Your task to perform on an android device: install app "WhatsApp Messenger" Image 0: 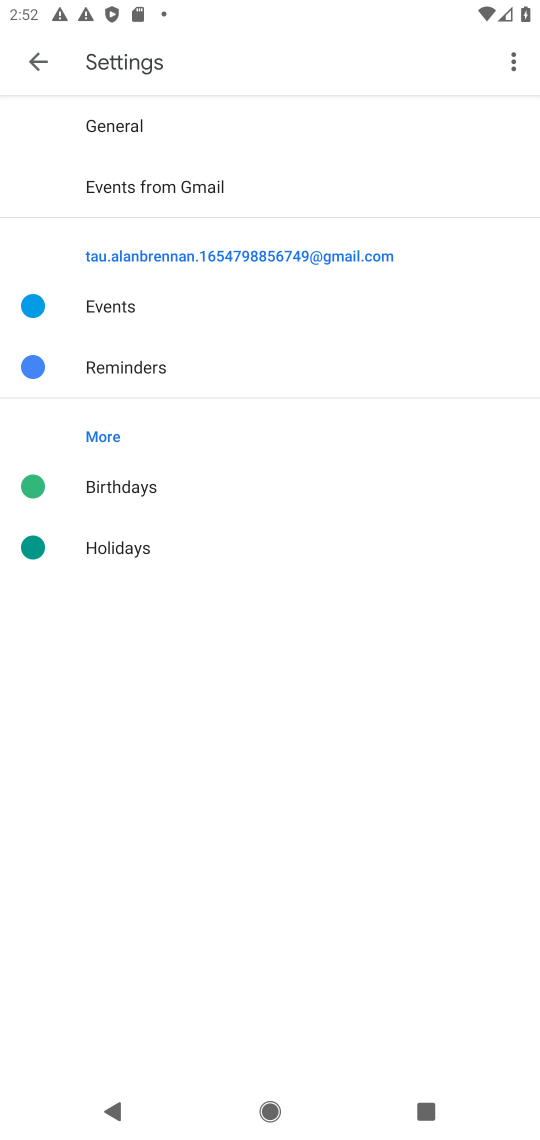
Step 0: click (38, 41)
Your task to perform on an android device: install app "WhatsApp Messenger" Image 1: 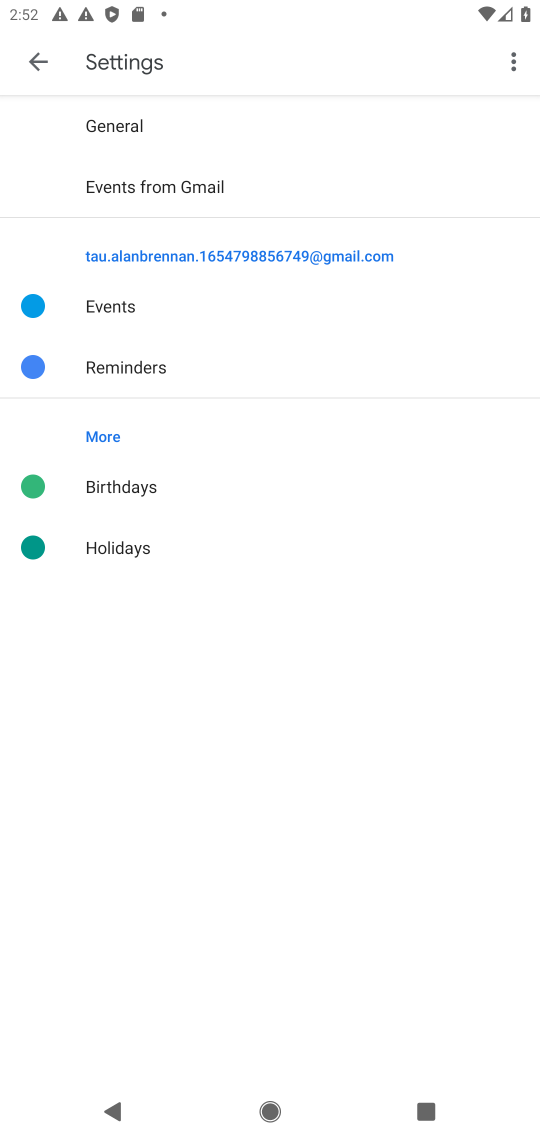
Step 1: click (18, 57)
Your task to perform on an android device: install app "WhatsApp Messenger" Image 2: 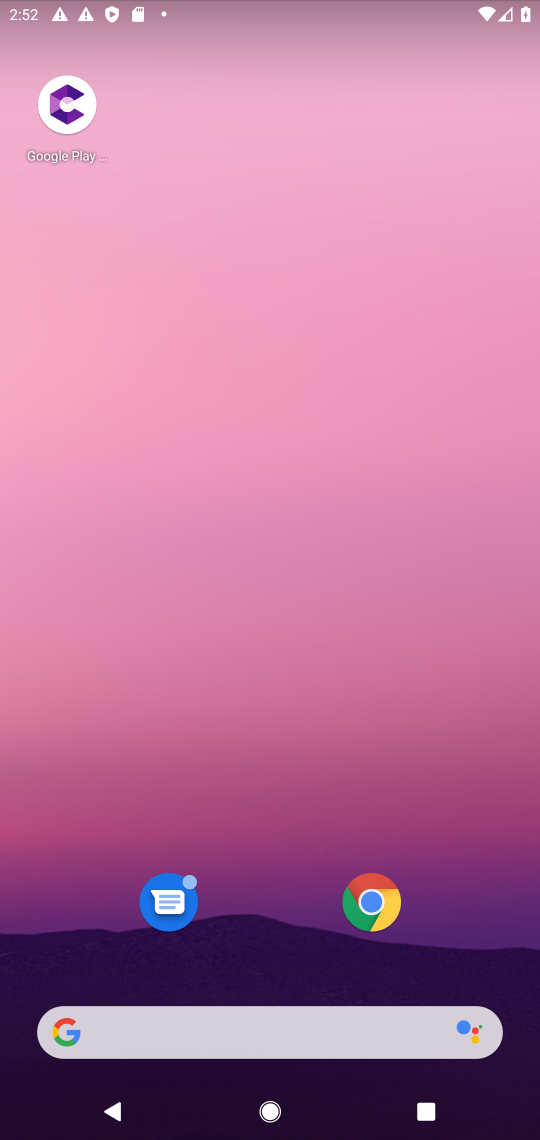
Step 2: drag from (234, 936) to (4, 152)
Your task to perform on an android device: install app "WhatsApp Messenger" Image 3: 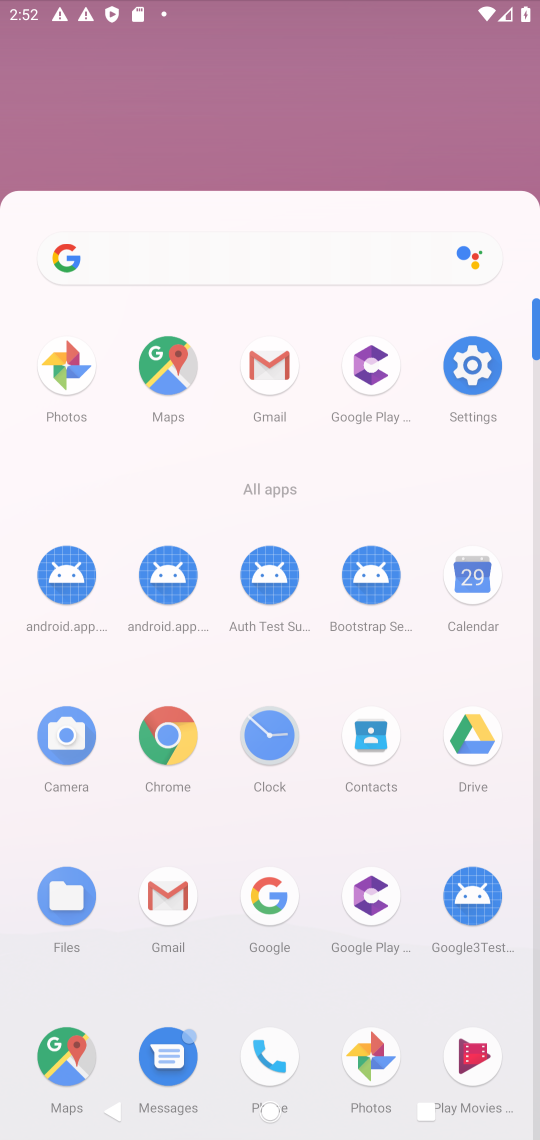
Step 3: drag from (245, 520) to (235, 462)
Your task to perform on an android device: install app "WhatsApp Messenger" Image 4: 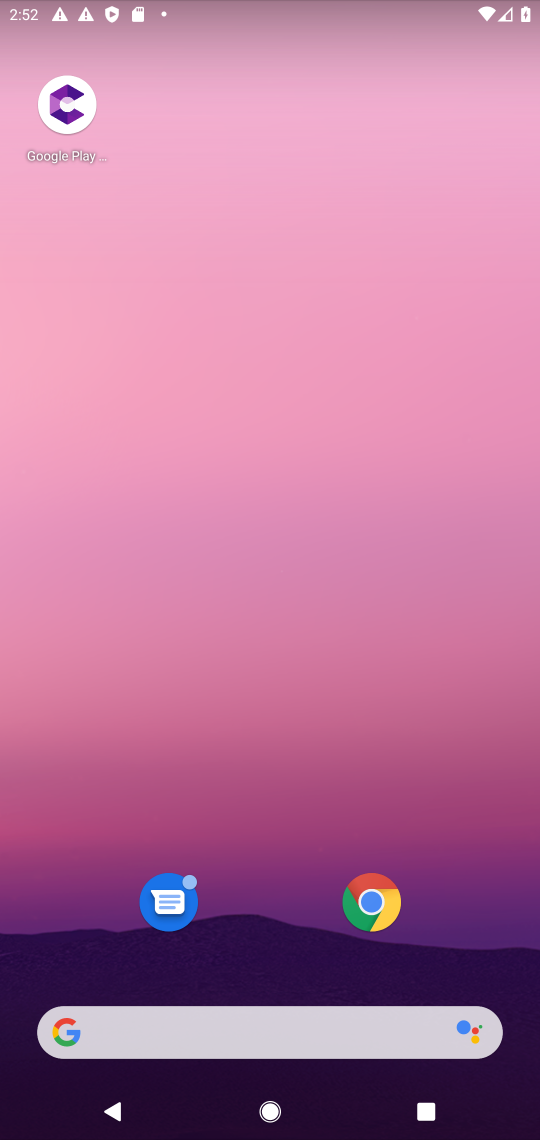
Step 4: drag from (356, 1081) to (334, 3)
Your task to perform on an android device: install app "WhatsApp Messenger" Image 5: 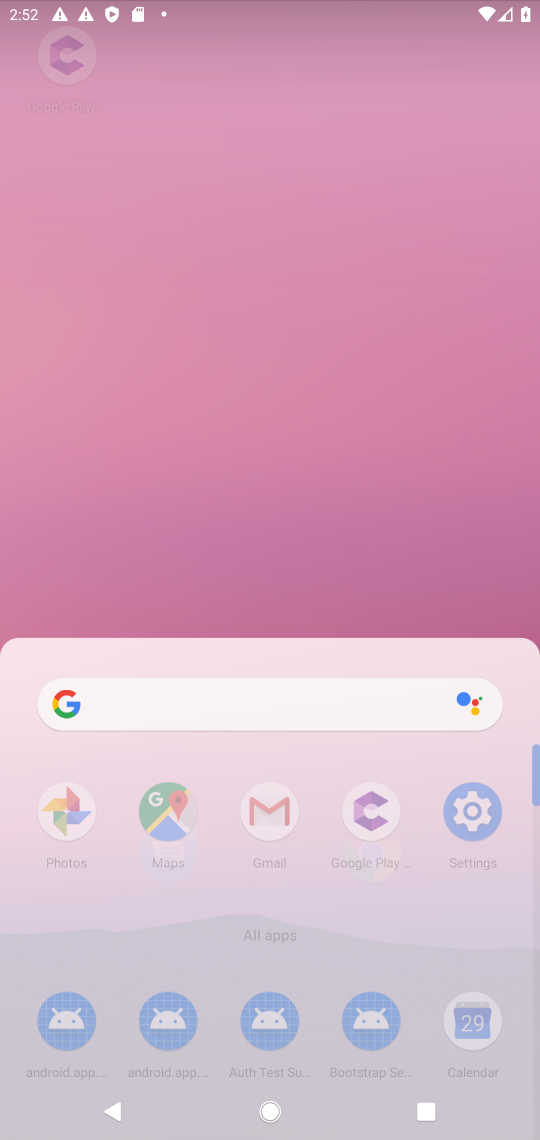
Step 5: drag from (209, 870) to (89, 36)
Your task to perform on an android device: install app "WhatsApp Messenger" Image 6: 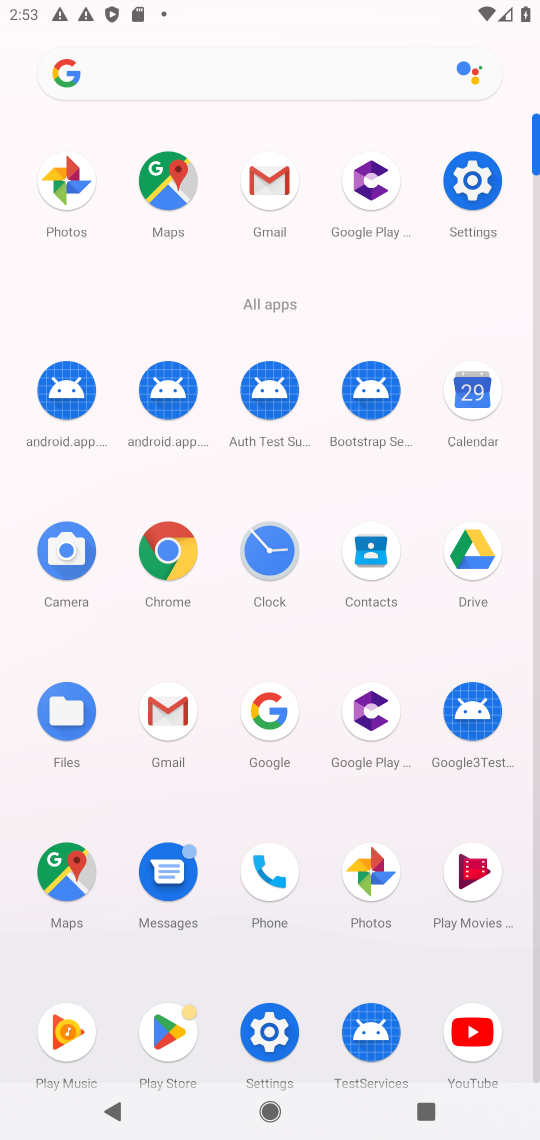
Step 6: click (176, 1031)
Your task to perform on an android device: install app "WhatsApp Messenger" Image 7: 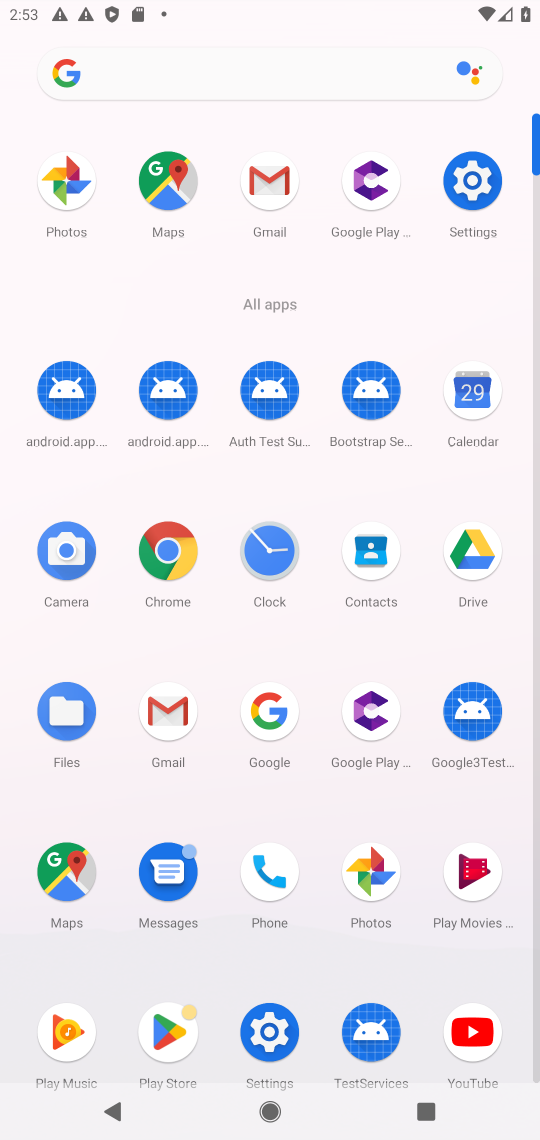
Step 7: click (185, 1027)
Your task to perform on an android device: install app "WhatsApp Messenger" Image 8: 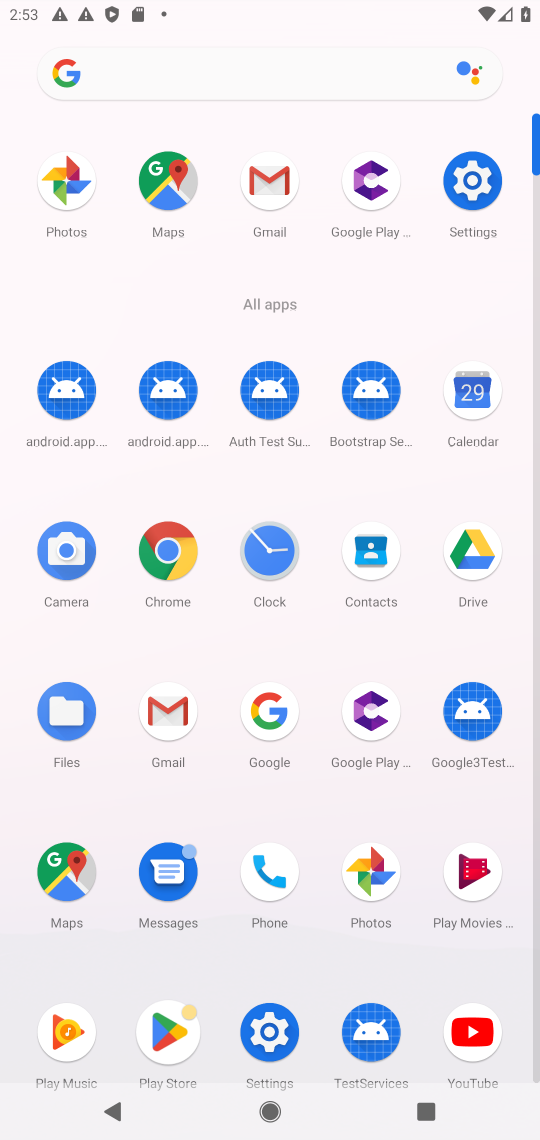
Step 8: click (185, 1027)
Your task to perform on an android device: install app "WhatsApp Messenger" Image 9: 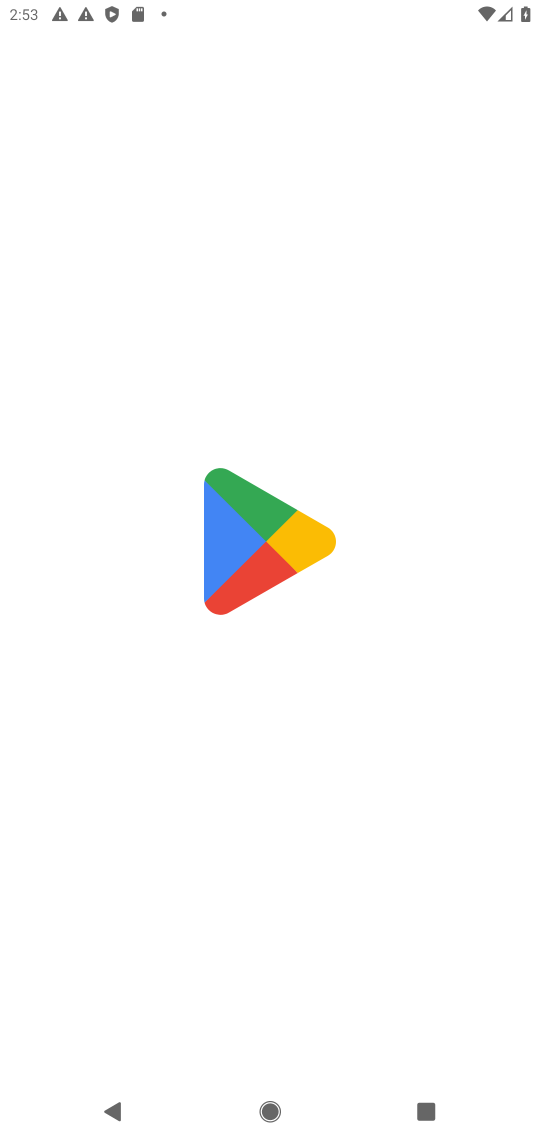
Step 9: click (172, 1023)
Your task to perform on an android device: install app "WhatsApp Messenger" Image 10: 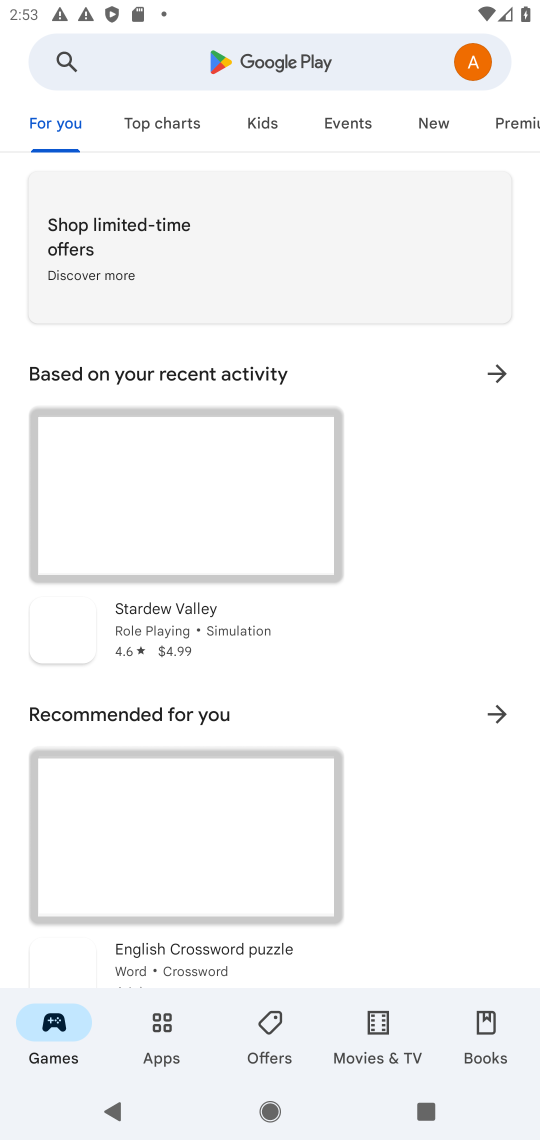
Step 10: click (208, 48)
Your task to perform on an android device: install app "WhatsApp Messenger" Image 11: 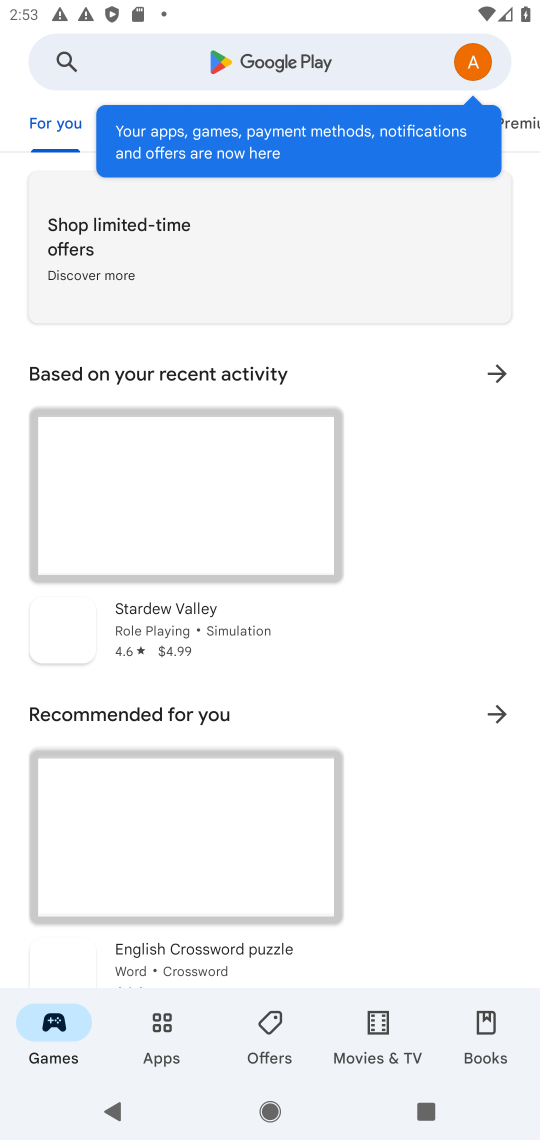
Step 11: click (204, 55)
Your task to perform on an android device: install app "WhatsApp Messenger" Image 12: 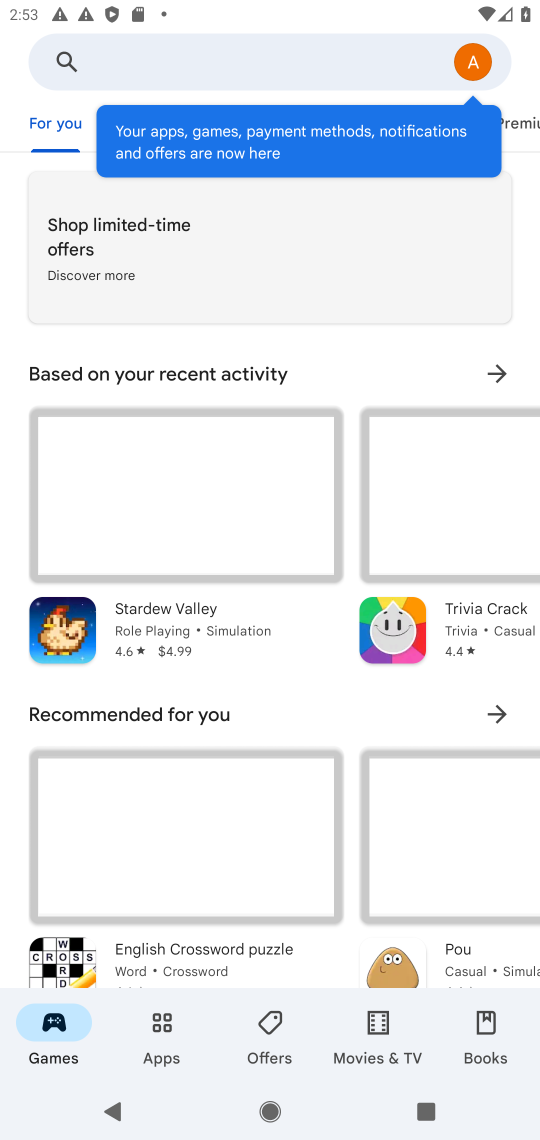
Step 12: click (204, 58)
Your task to perform on an android device: install app "WhatsApp Messenger" Image 13: 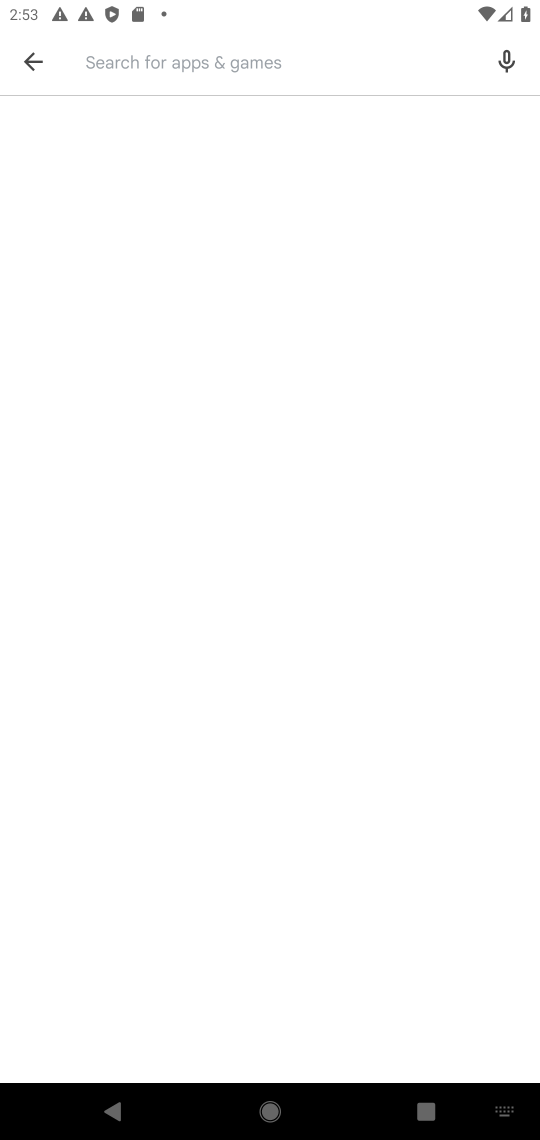
Step 13: type "whatssapp messenger"
Your task to perform on an android device: install app "WhatsApp Messenger" Image 14: 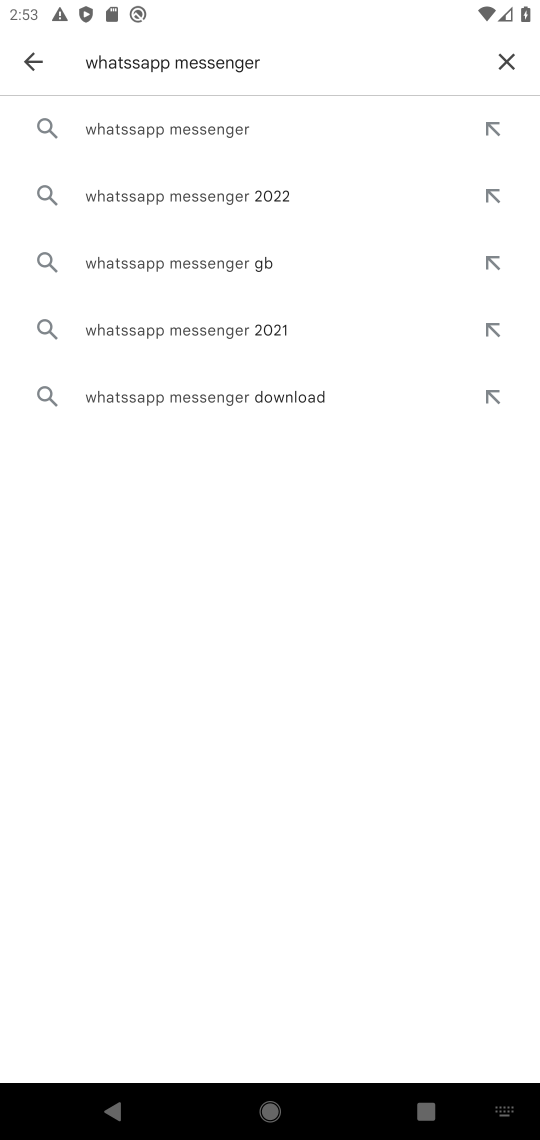
Step 14: click (206, 131)
Your task to perform on an android device: install app "WhatsApp Messenger" Image 15: 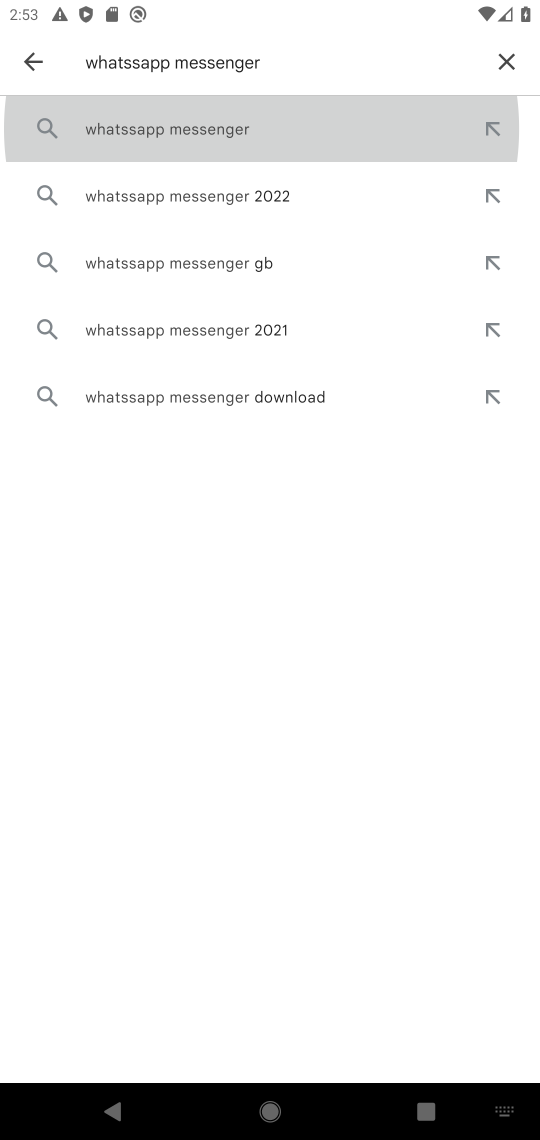
Step 15: click (205, 131)
Your task to perform on an android device: install app "WhatsApp Messenger" Image 16: 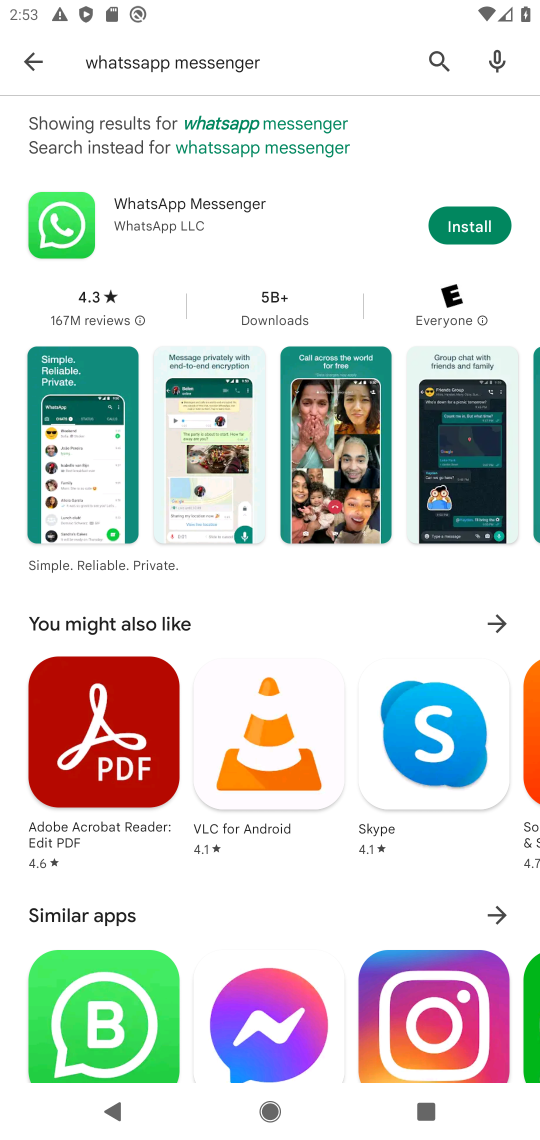
Step 16: click (446, 232)
Your task to perform on an android device: install app "WhatsApp Messenger" Image 17: 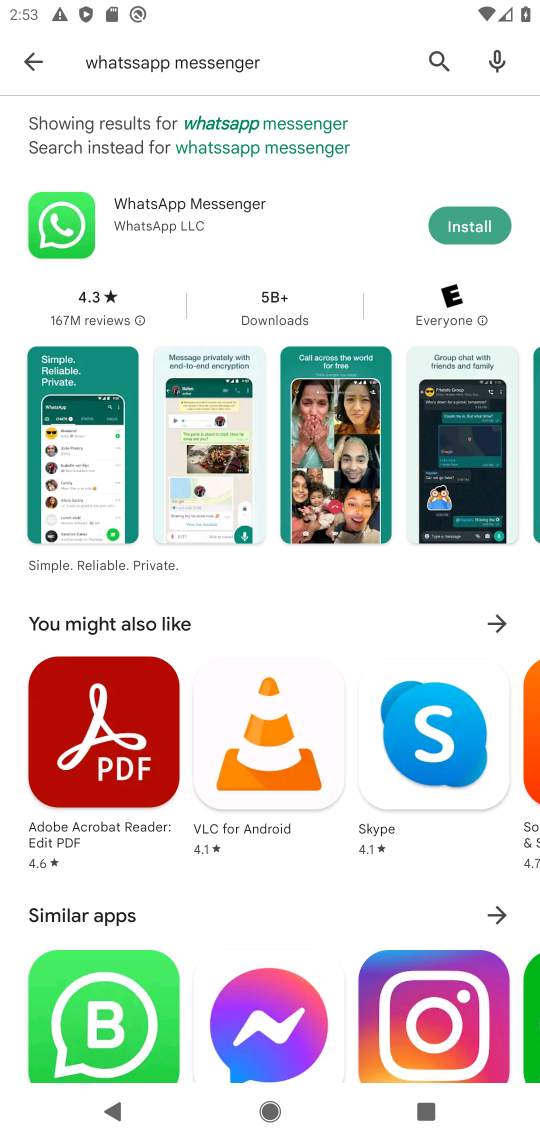
Step 17: click (455, 232)
Your task to perform on an android device: install app "WhatsApp Messenger" Image 18: 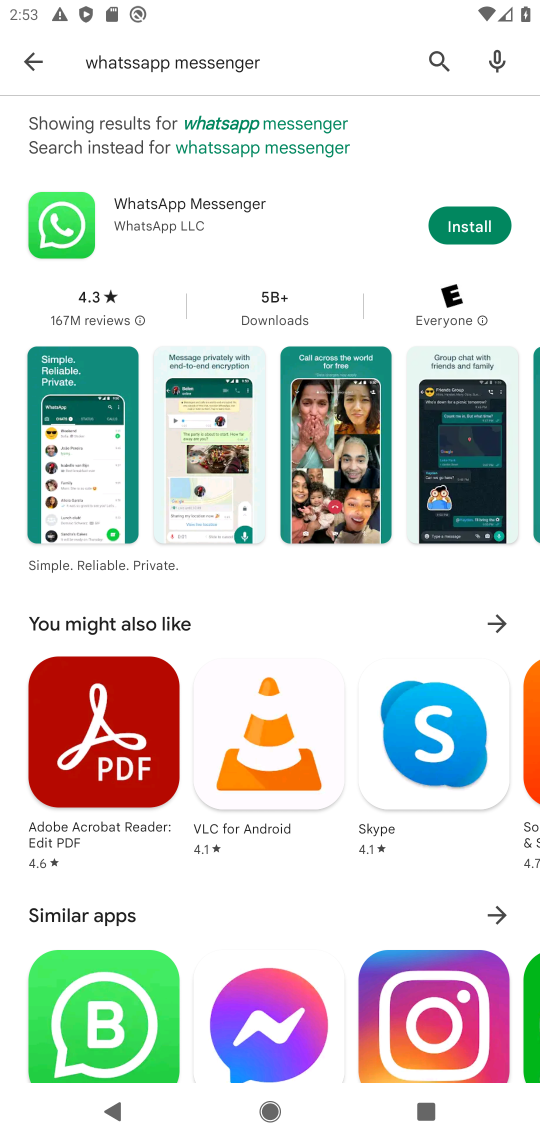
Step 18: click (469, 211)
Your task to perform on an android device: install app "WhatsApp Messenger" Image 19: 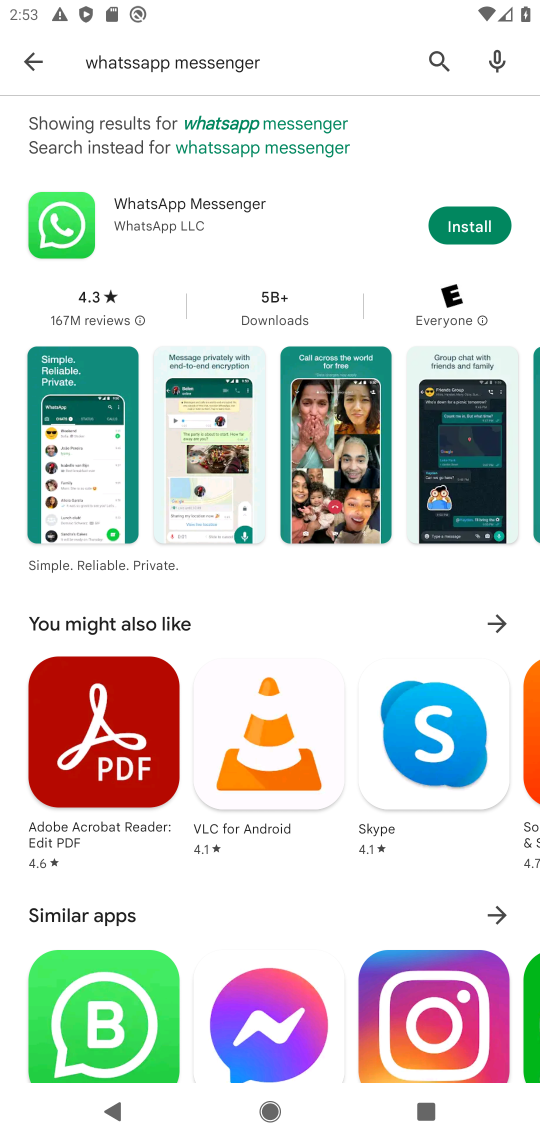
Step 19: click (469, 211)
Your task to perform on an android device: install app "WhatsApp Messenger" Image 20: 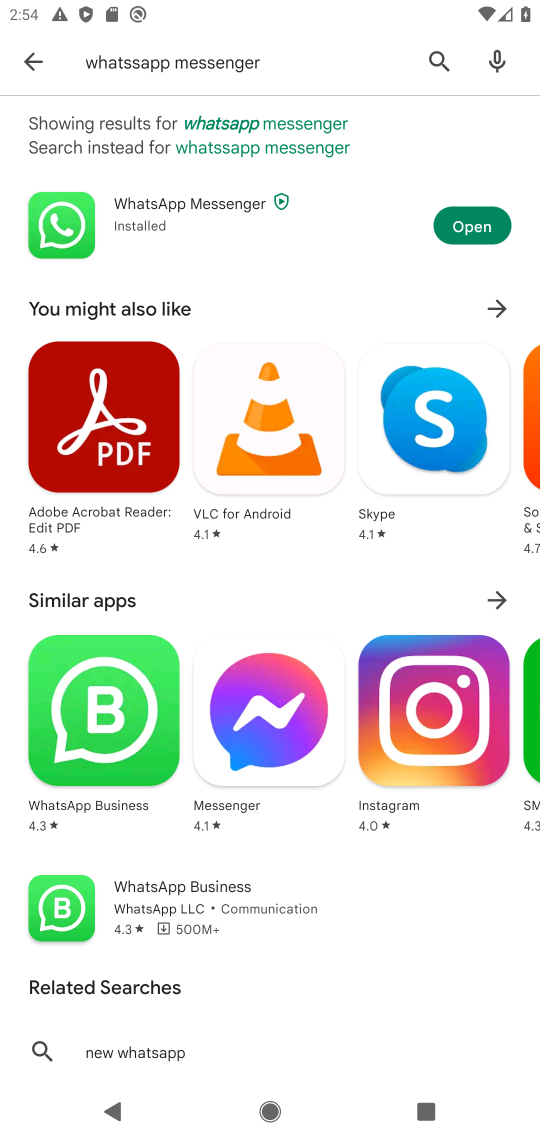
Step 20: click (487, 229)
Your task to perform on an android device: install app "WhatsApp Messenger" Image 21: 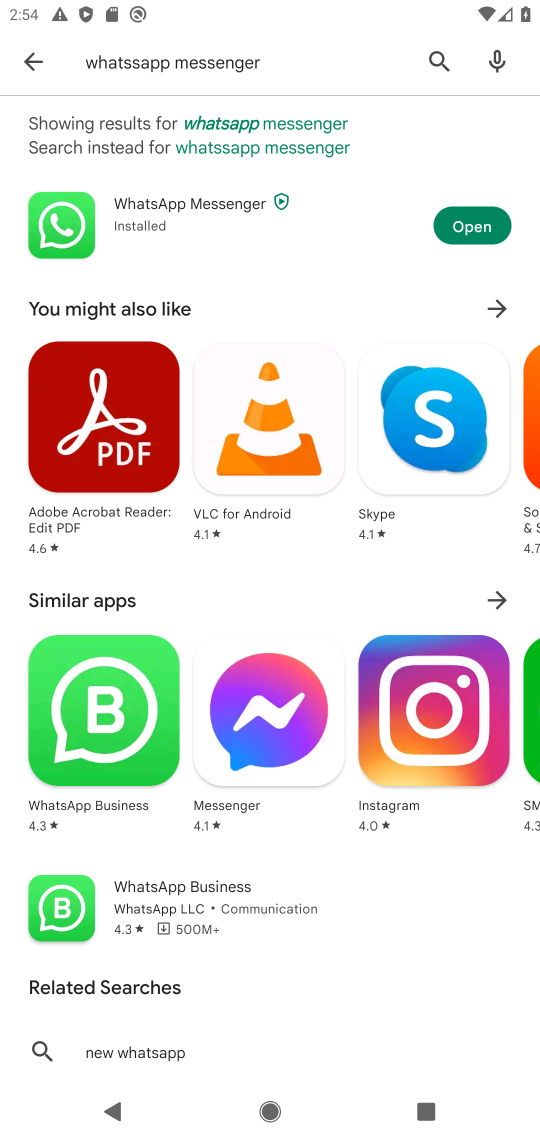
Step 21: click (485, 227)
Your task to perform on an android device: install app "WhatsApp Messenger" Image 22: 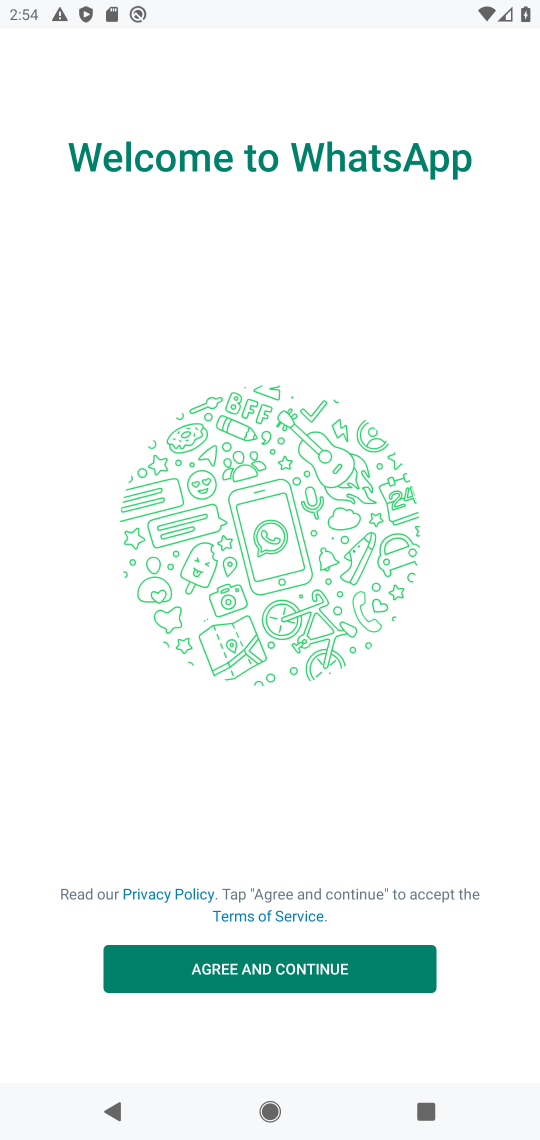
Step 22: task complete